Your task to perform on an android device: allow notifications from all sites in the chrome app Image 0: 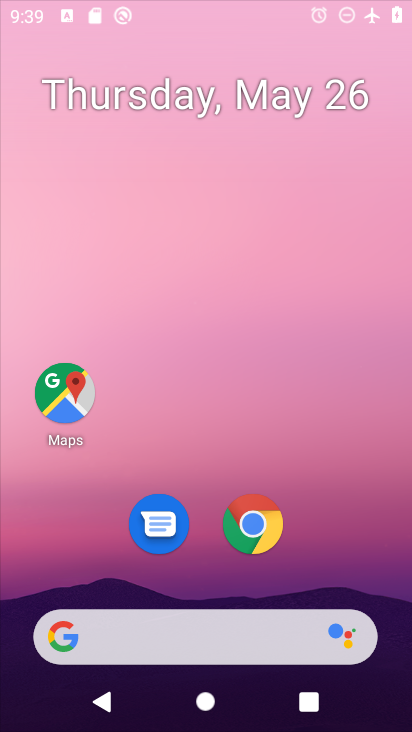
Step 0: drag from (314, 543) to (338, 25)
Your task to perform on an android device: allow notifications from all sites in the chrome app Image 1: 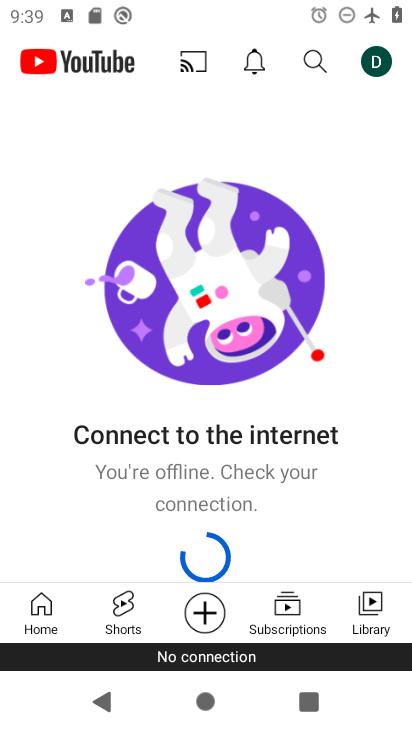
Step 1: press home button
Your task to perform on an android device: allow notifications from all sites in the chrome app Image 2: 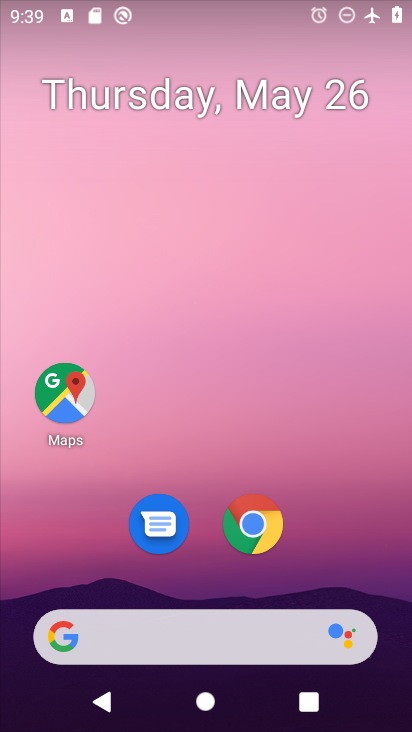
Step 2: click (258, 527)
Your task to perform on an android device: allow notifications from all sites in the chrome app Image 3: 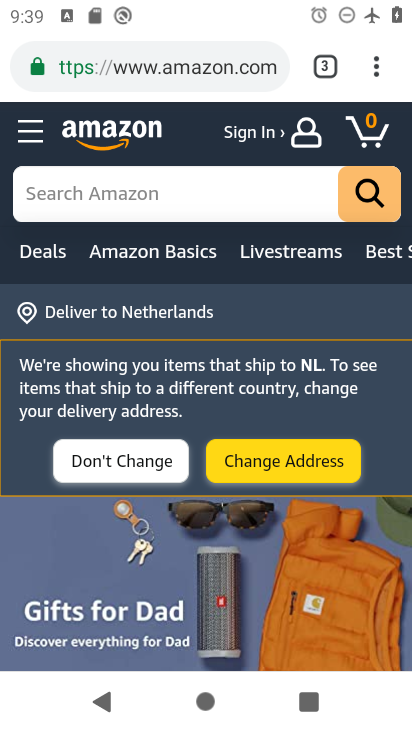
Step 3: click (377, 67)
Your task to perform on an android device: allow notifications from all sites in the chrome app Image 4: 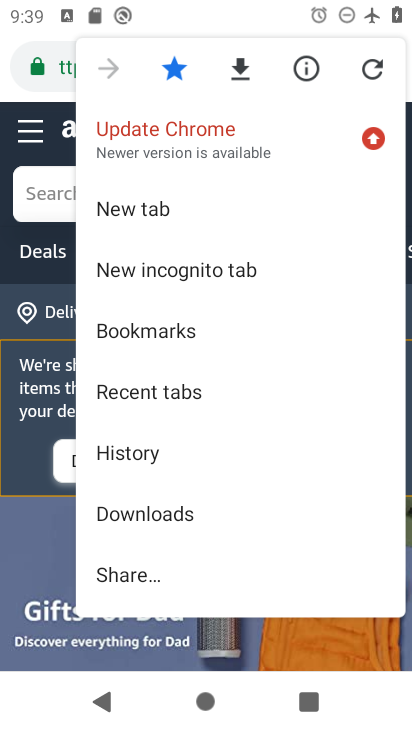
Step 4: drag from (262, 460) to (269, 123)
Your task to perform on an android device: allow notifications from all sites in the chrome app Image 5: 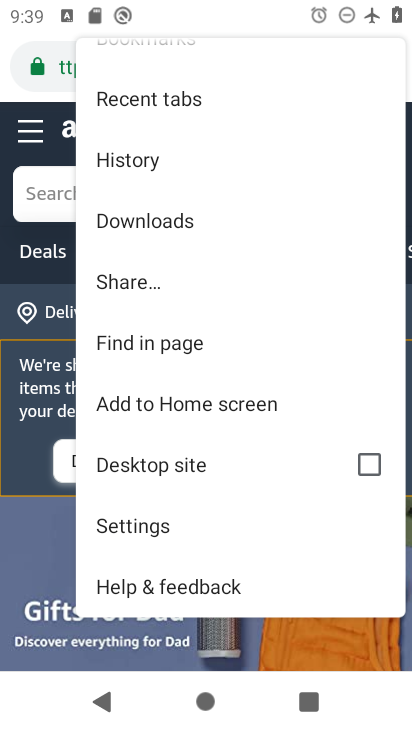
Step 5: click (176, 516)
Your task to perform on an android device: allow notifications from all sites in the chrome app Image 6: 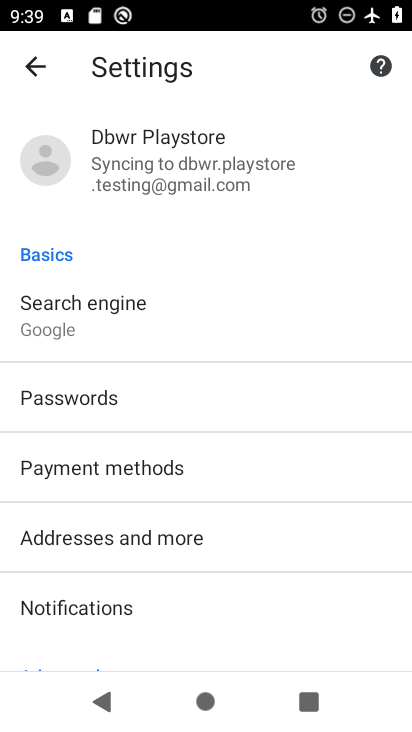
Step 6: click (265, 595)
Your task to perform on an android device: allow notifications from all sites in the chrome app Image 7: 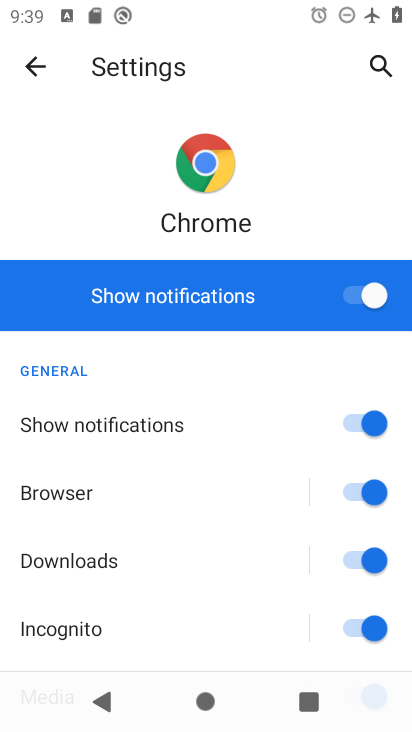
Step 7: task complete